Your task to perform on an android device: What's the weather going to be tomorrow? Image 0: 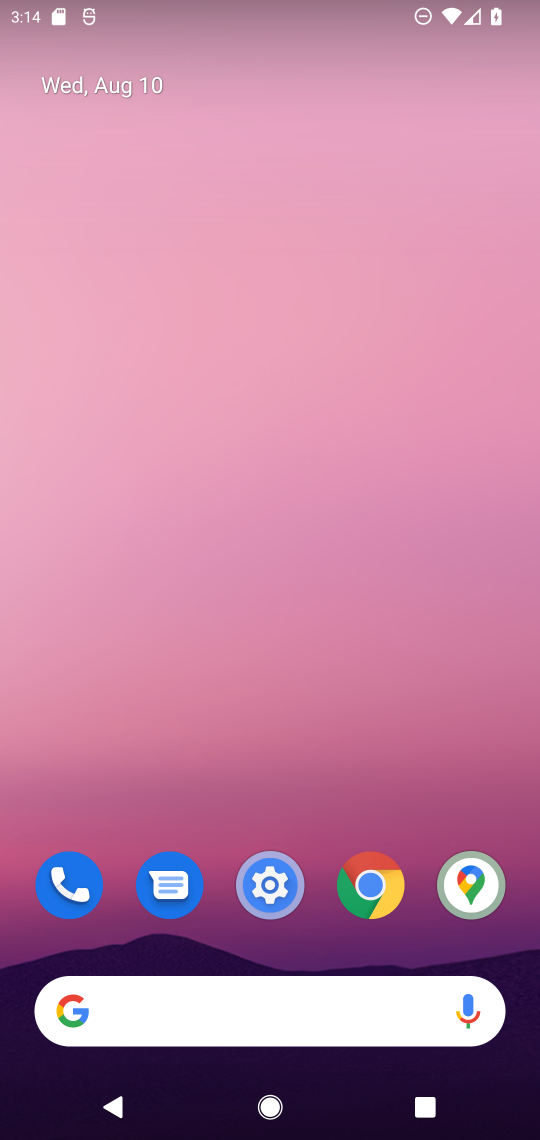
Step 0: click (247, 995)
Your task to perform on an android device: What's the weather going to be tomorrow? Image 1: 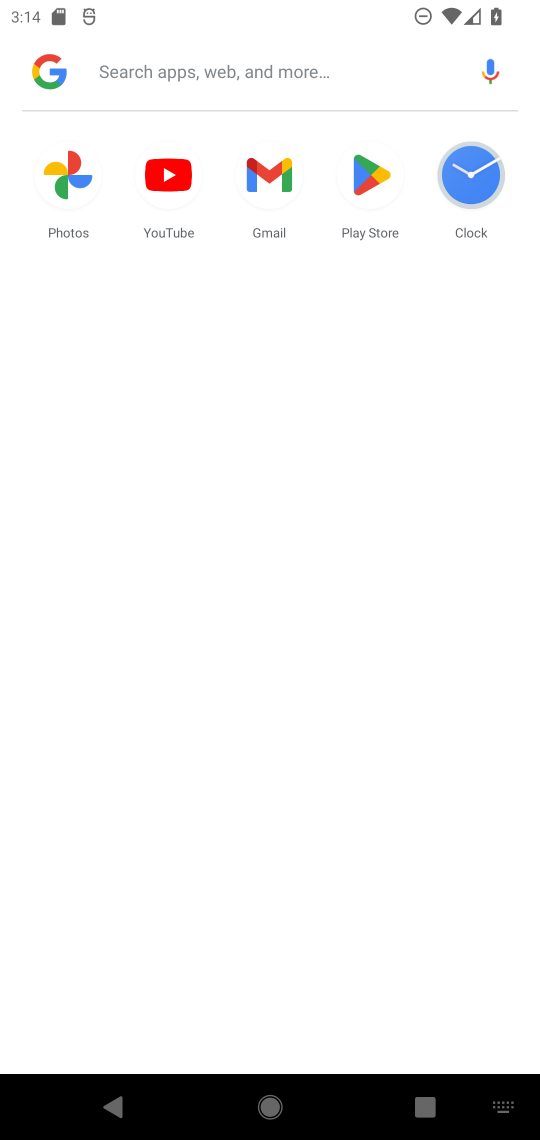
Step 1: type "weather"
Your task to perform on an android device: What's the weather going to be tomorrow? Image 2: 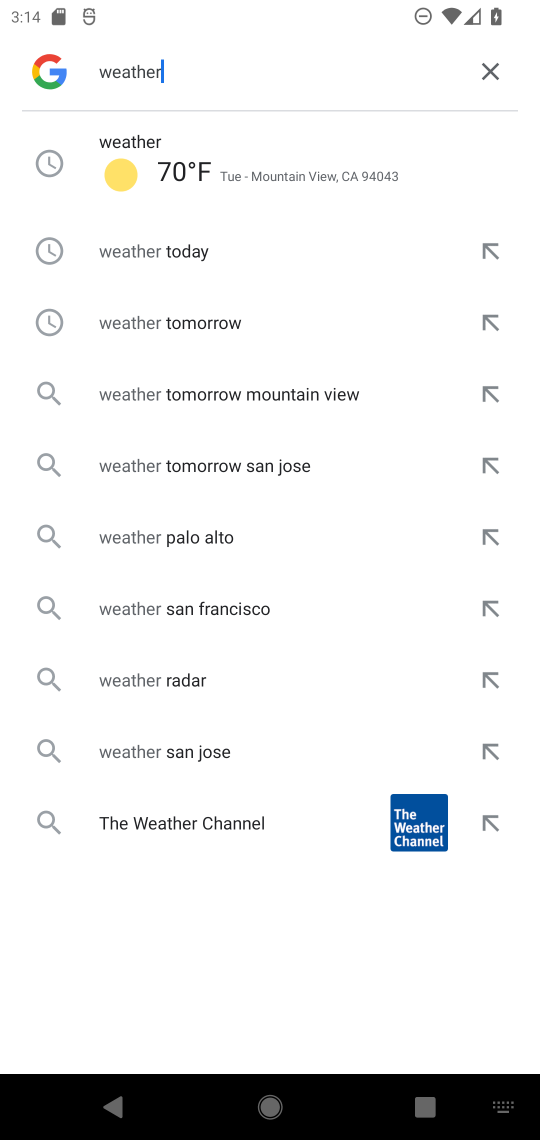
Step 2: click (181, 320)
Your task to perform on an android device: What's the weather going to be tomorrow? Image 3: 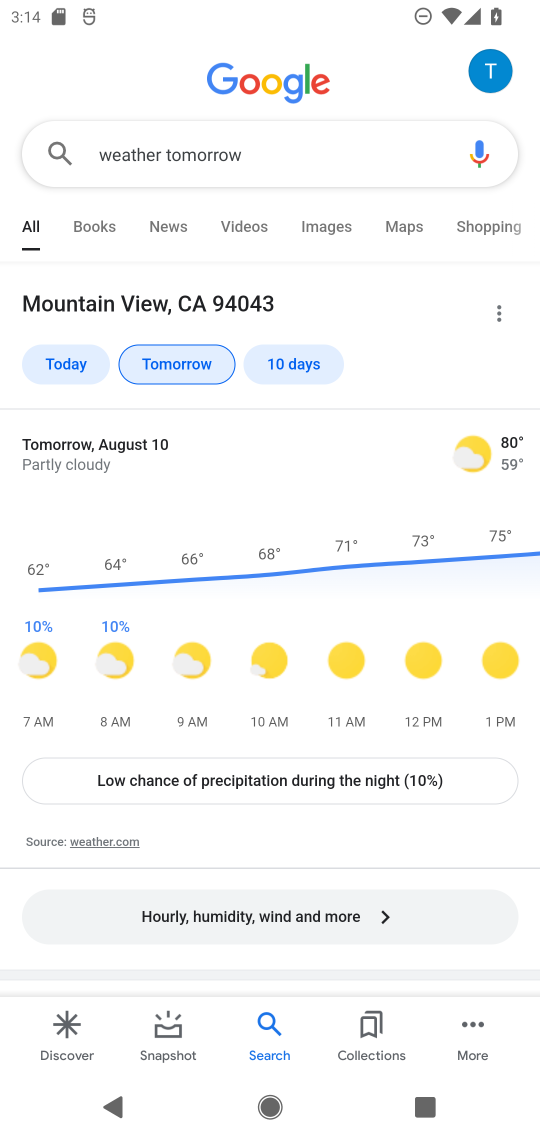
Step 3: task complete